Your task to perform on an android device: open the mobile data screen to see how much data has been used Image 0: 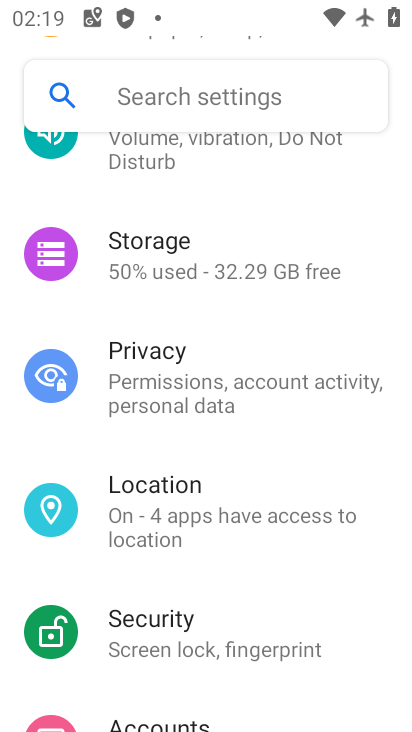
Step 0: press home button
Your task to perform on an android device: open the mobile data screen to see how much data has been used Image 1: 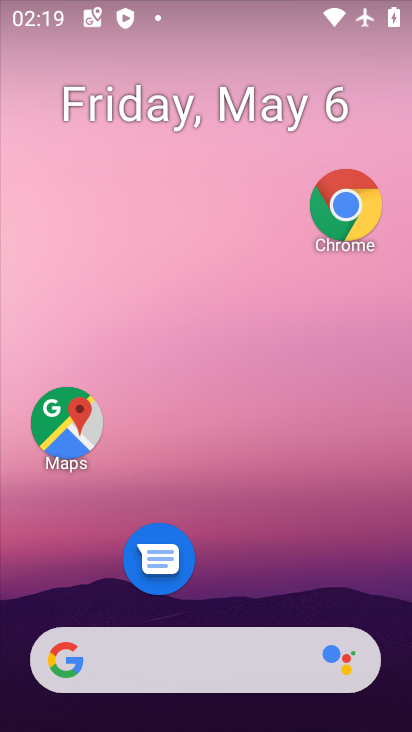
Step 1: drag from (139, 660) to (324, 125)
Your task to perform on an android device: open the mobile data screen to see how much data has been used Image 2: 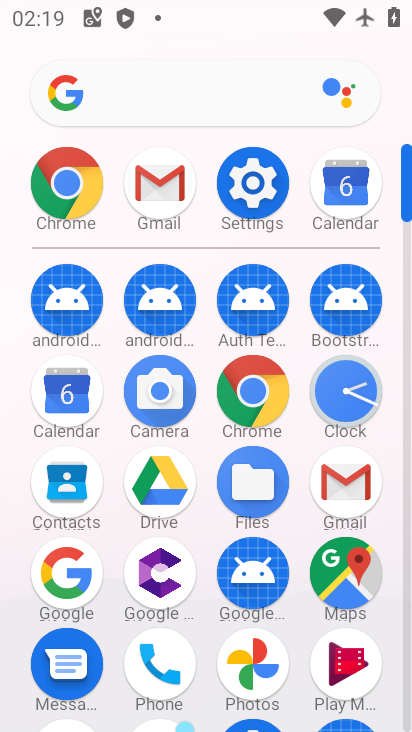
Step 2: click (259, 173)
Your task to perform on an android device: open the mobile data screen to see how much data has been used Image 3: 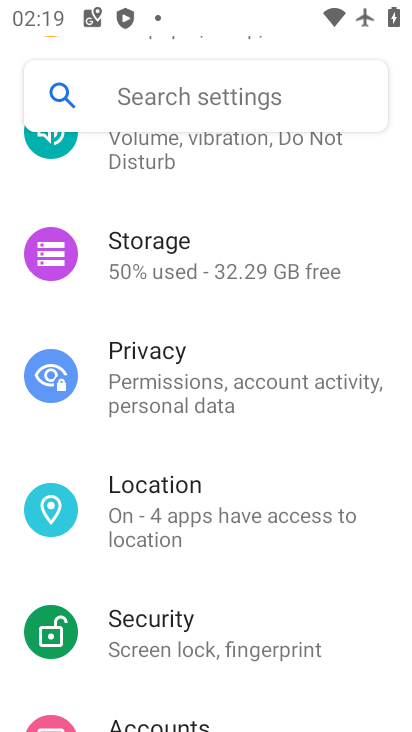
Step 3: drag from (280, 167) to (235, 596)
Your task to perform on an android device: open the mobile data screen to see how much data has been used Image 4: 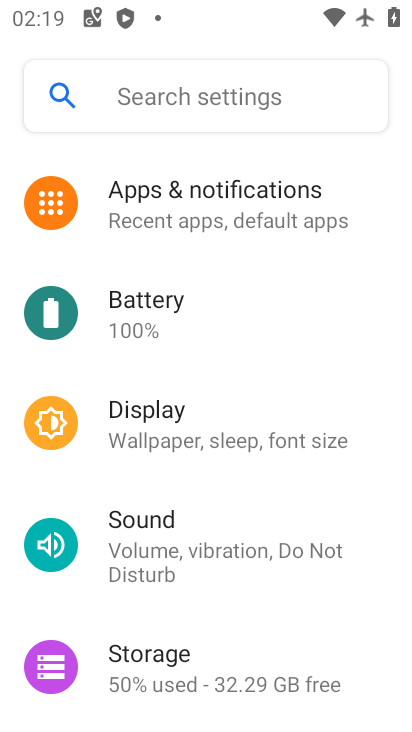
Step 4: drag from (322, 155) to (249, 551)
Your task to perform on an android device: open the mobile data screen to see how much data has been used Image 5: 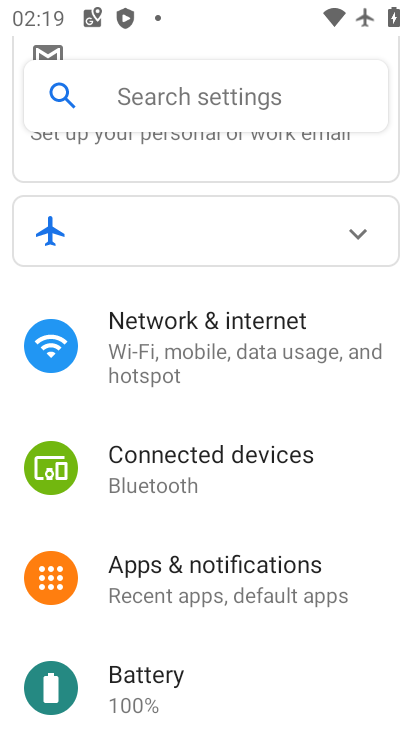
Step 5: click (265, 343)
Your task to perform on an android device: open the mobile data screen to see how much data has been used Image 6: 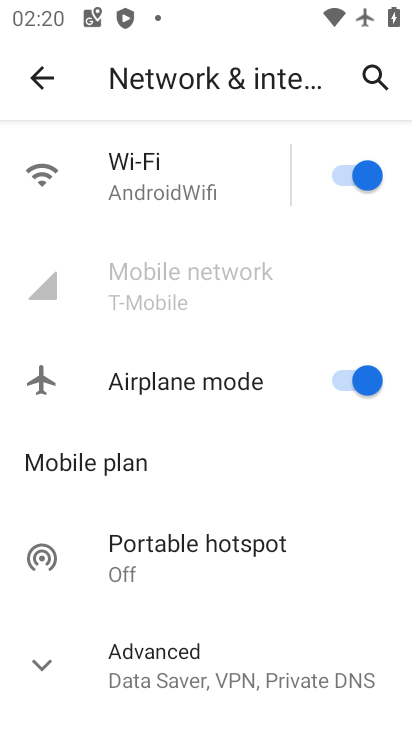
Step 6: task complete